Your task to perform on an android device: allow notifications from all sites in the chrome app Image 0: 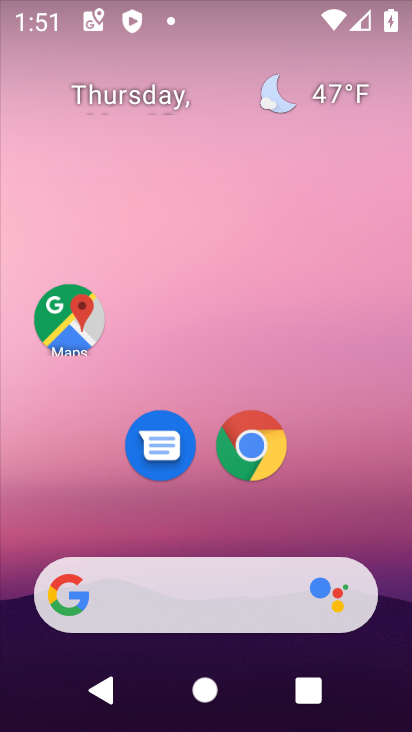
Step 0: click (266, 451)
Your task to perform on an android device: allow notifications from all sites in the chrome app Image 1: 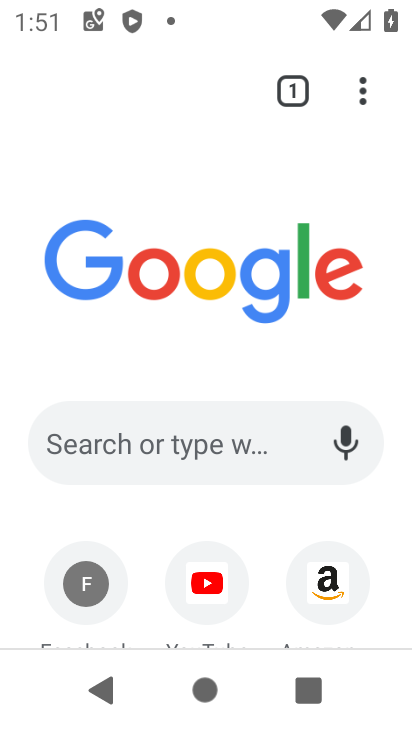
Step 1: click (364, 95)
Your task to perform on an android device: allow notifications from all sites in the chrome app Image 2: 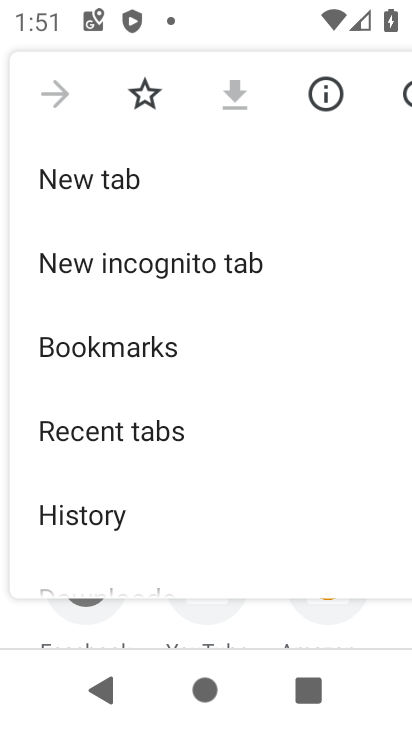
Step 2: drag from (217, 462) to (251, 214)
Your task to perform on an android device: allow notifications from all sites in the chrome app Image 3: 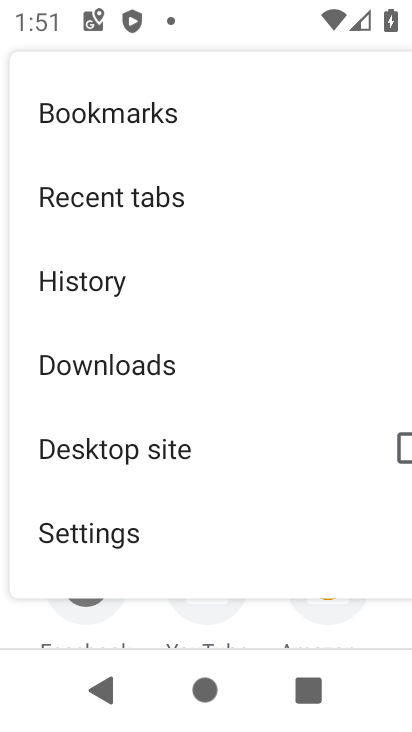
Step 3: click (149, 517)
Your task to perform on an android device: allow notifications from all sites in the chrome app Image 4: 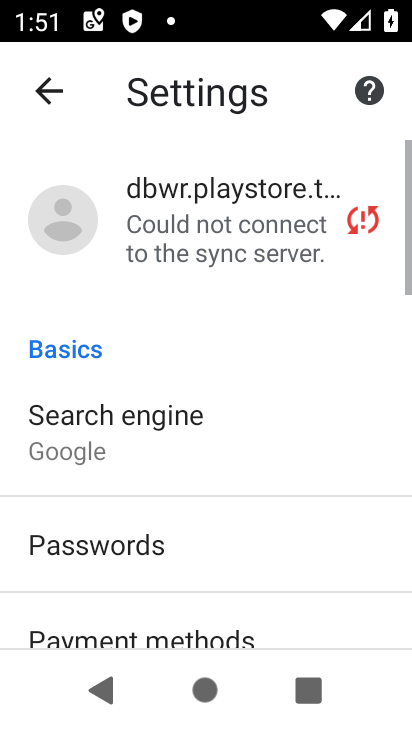
Step 4: drag from (196, 561) to (219, 188)
Your task to perform on an android device: allow notifications from all sites in the chrome app Image 5: 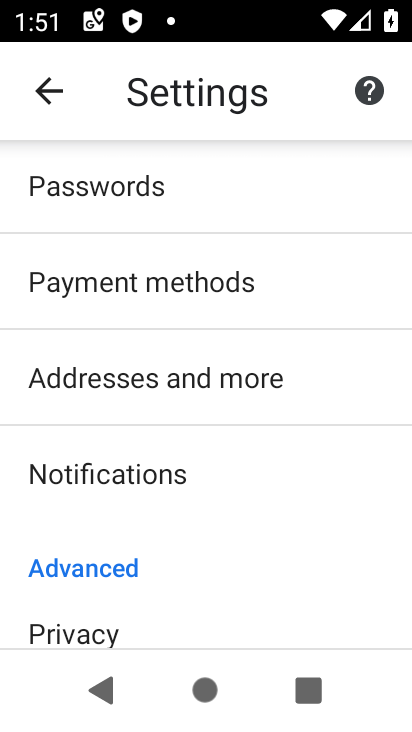
Step 5: drag from (213, 469) to (242, 225)
Your task to perform on an android device: allow notifications from all sites in the chrome app Image 6: 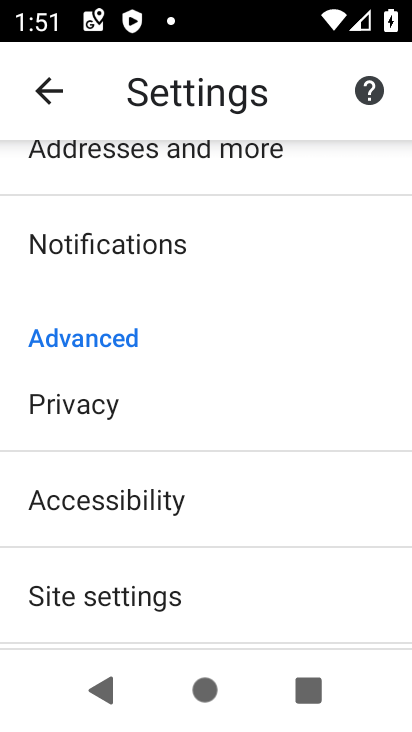
Step 6: click (181, 586)
Your task to perform on an android device: allow notifications from all sites in the chrome app Image 7: 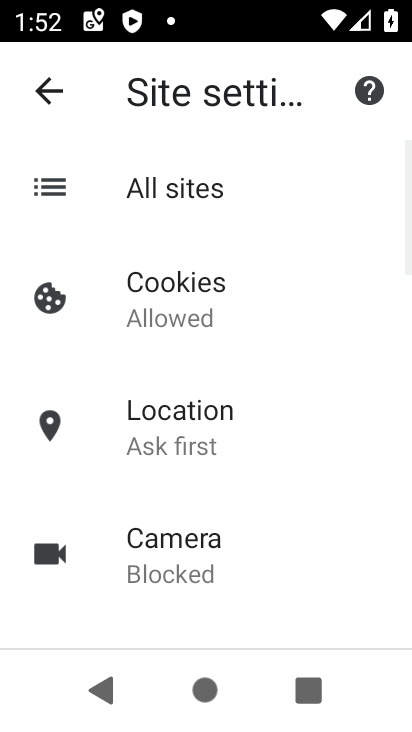
Step 7: click (230, 199)
Your task to perform on an android device: allow notifications from all sites in the chrome app Image 8: 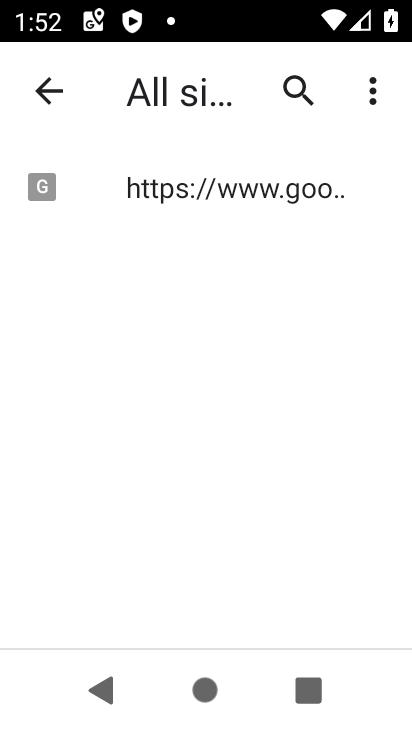
Step 8: click (230, 199)
Your task to perform on an android device: allow notifications from all sites in the chrome app Image 9: 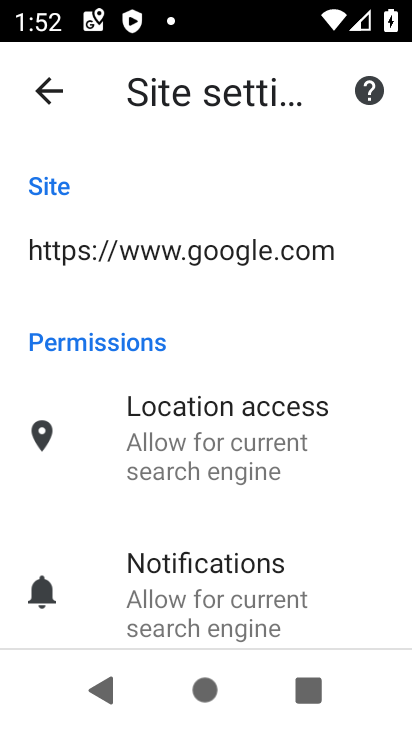
Step 9: drag from (236, 586) to (259, 445)
Your task to perform on an android device: allow notifications from all sites in the chrome app Image 10: 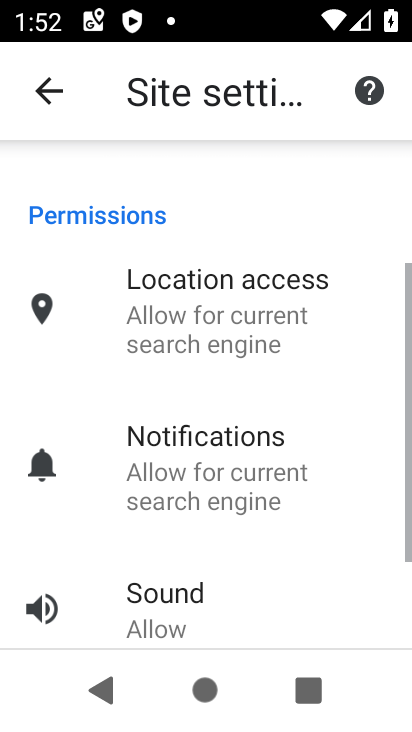
Step 10: click (242, 449)
Your task to perform on an android device: allow notifications from all sites in the chrome app Image 11: 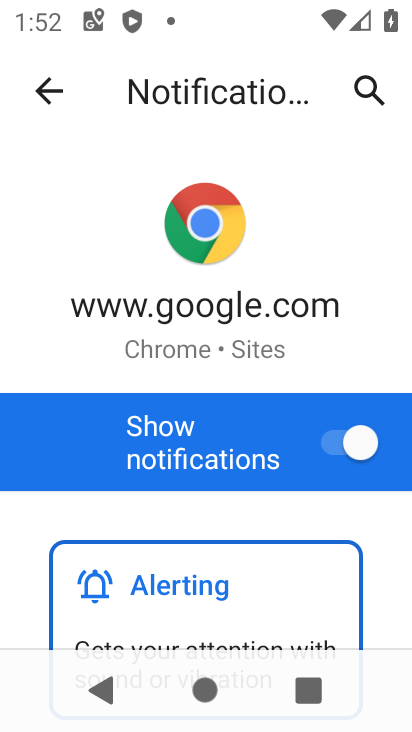
Step 11: task complete